Your task to perform on an android device: uninstall "Cash App" Image 0: 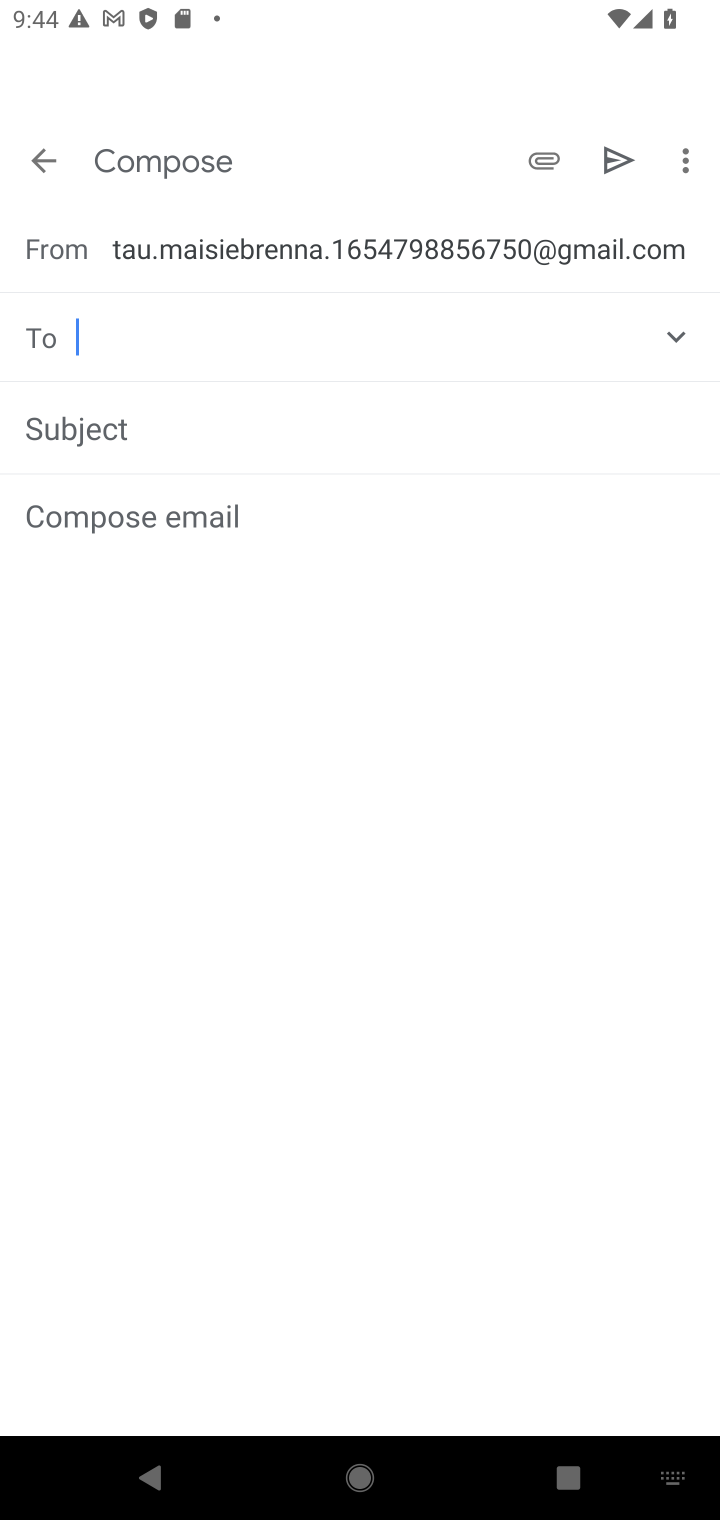
Step 0: press home button
Your task to perform on an android device: uninstall "Cash App" Image 1: 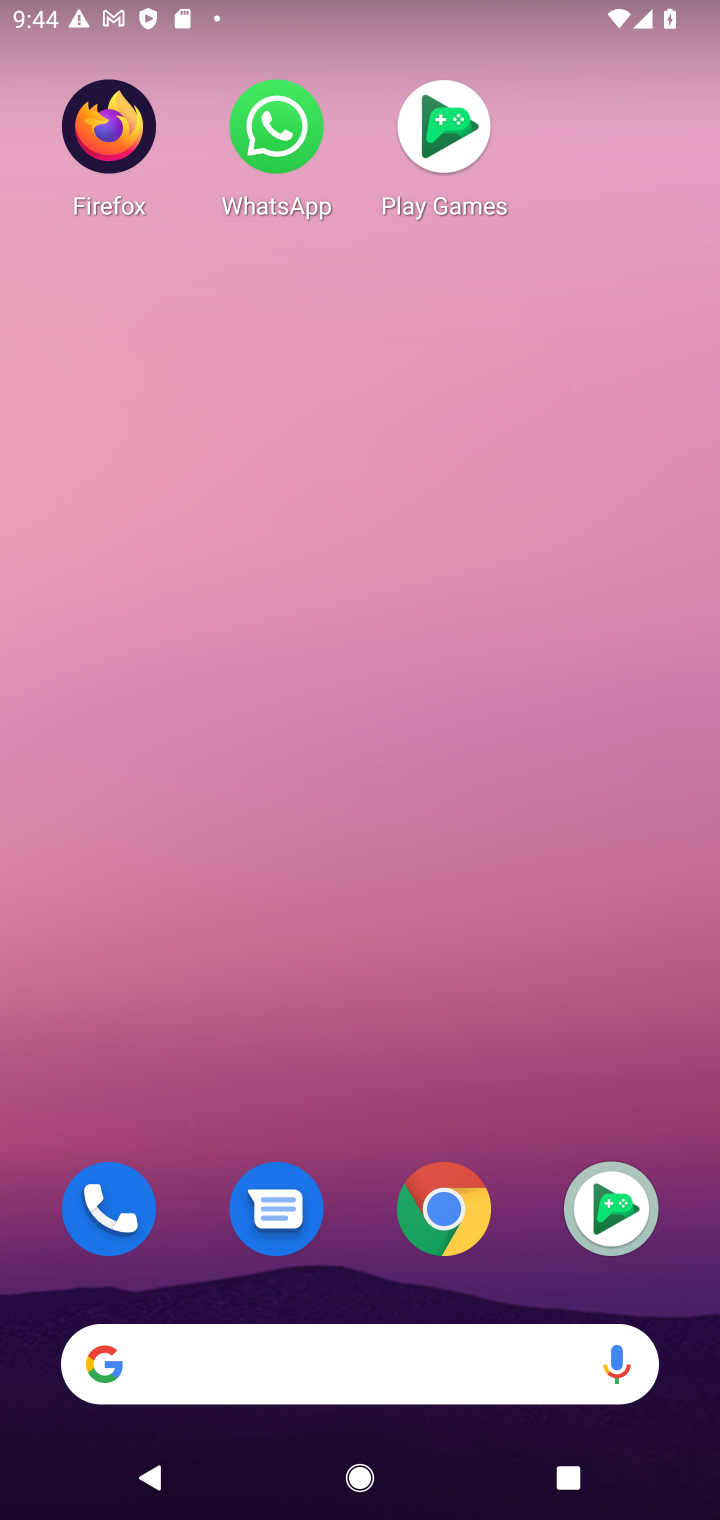
Step 1: drag from (332, 1200) to (363, 316)
Your task to perform on an android device: uninstall "Cash App" Image 2: 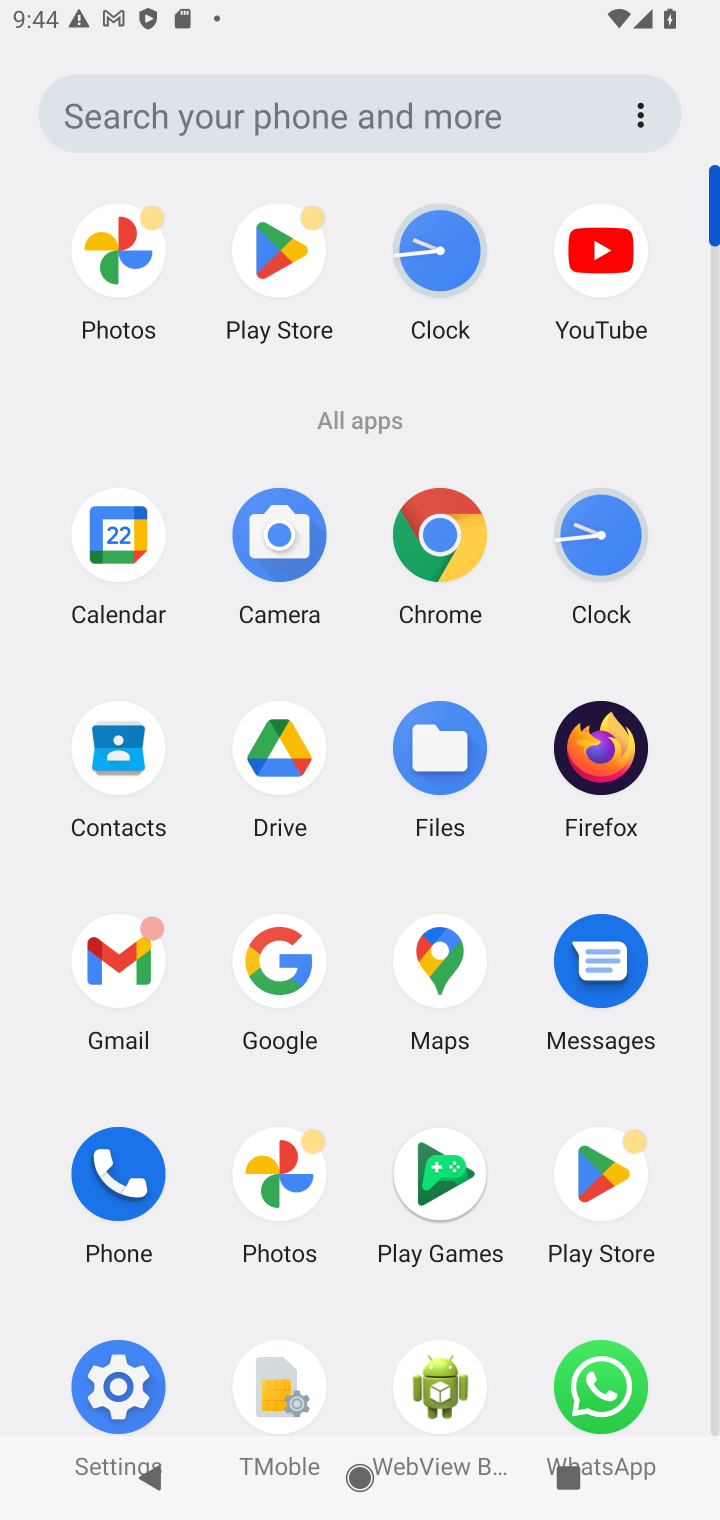
Step 2: click (281, 251)
Your task to perform on an android device: uninstall "Cash App" Image 3: 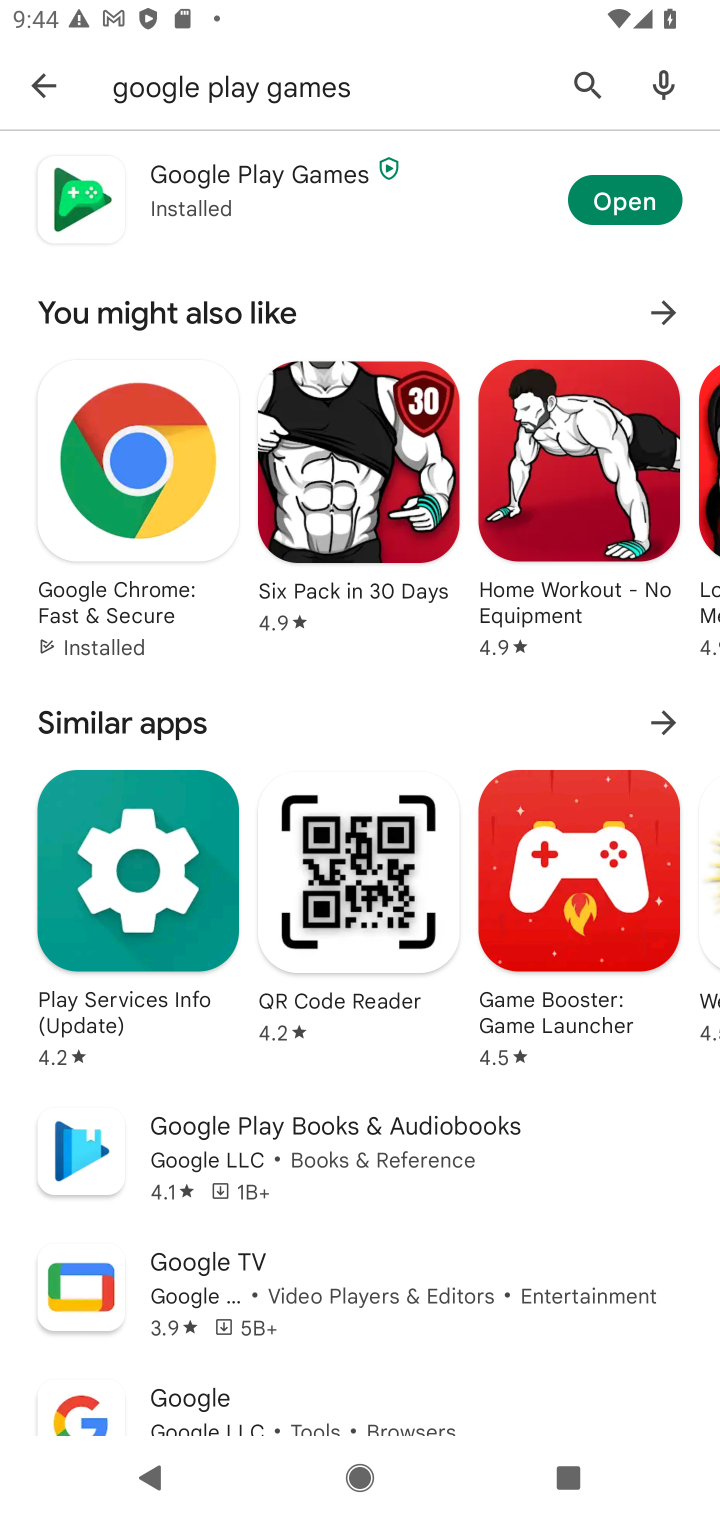
Step 3: click (577, 87)
Your task to perform on an android device: uninstall "Cash App" Image 4: 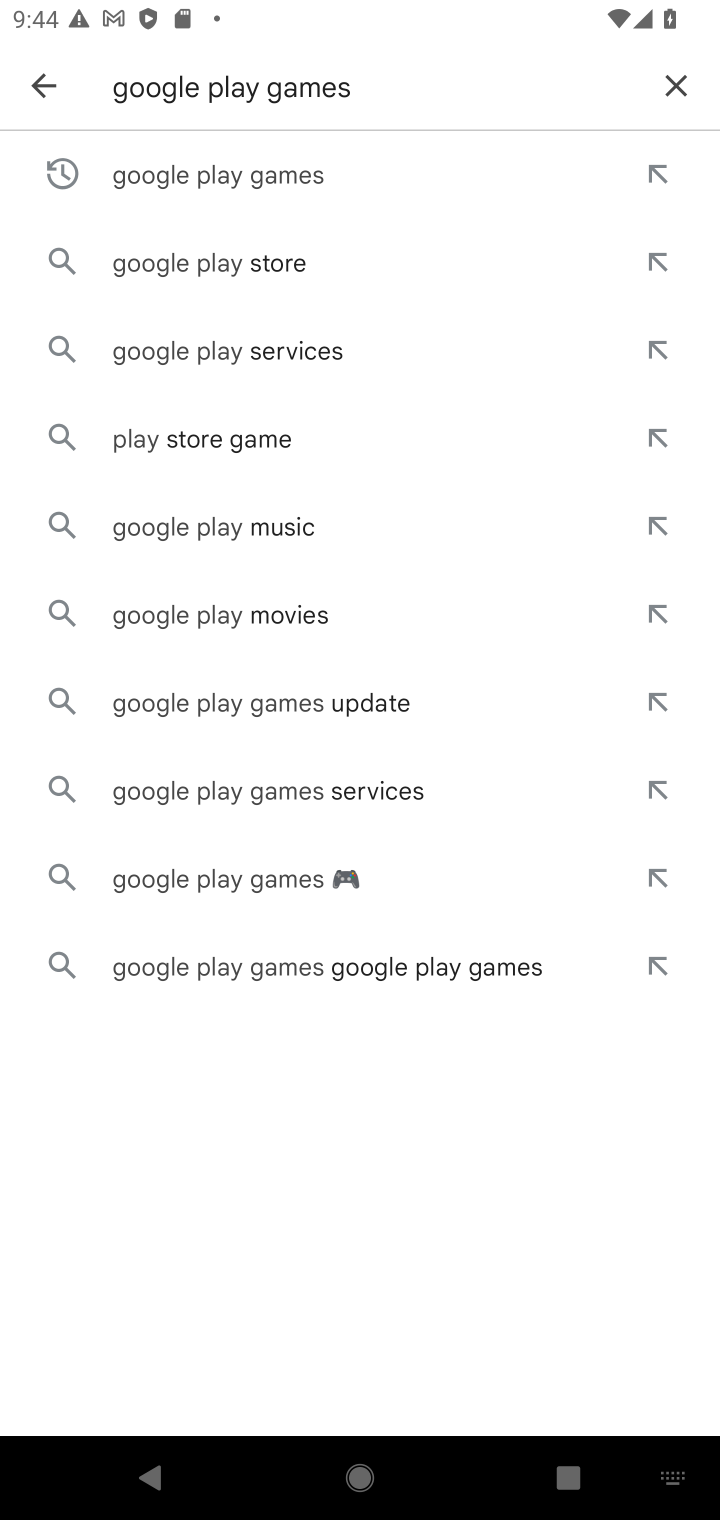
Step 4: click (669, 78)
Your task to perform on an android device: uninstall "Cash App" Image 5: 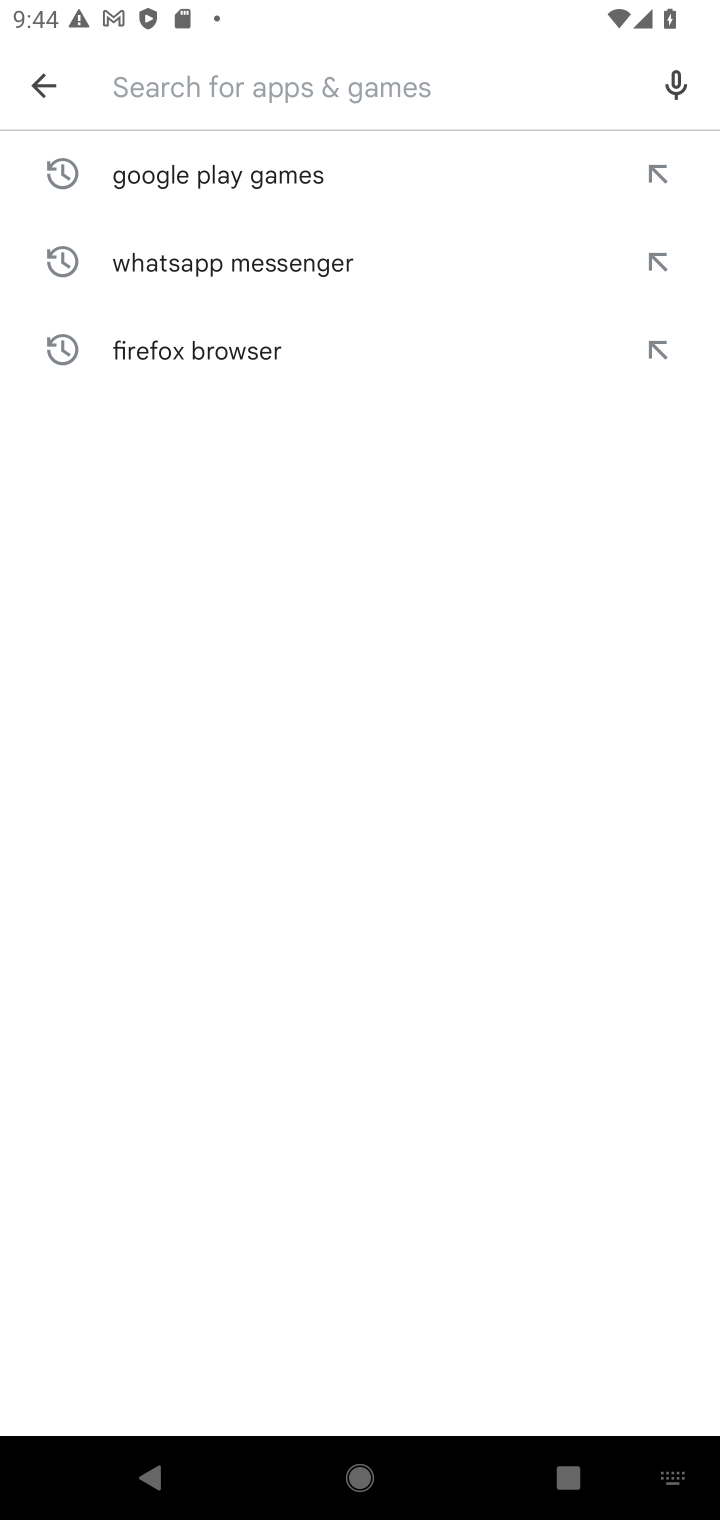
Step 5: type "Cash App"
Your task to perform on an android device: uninstall "Cash App" Image 6: 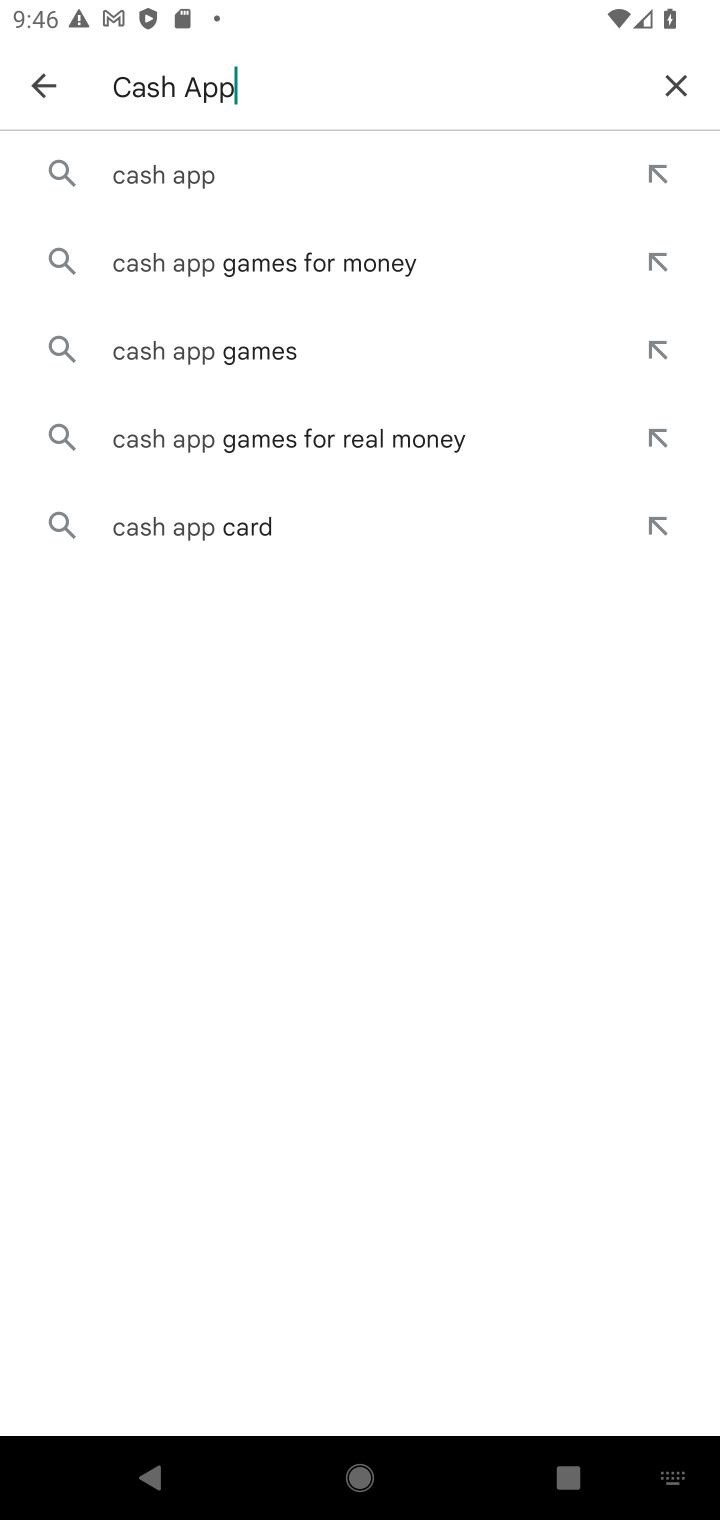
Step 6: click (134, 195)
Your task to perform on an android device: uninstall "Cash App" Image 7: 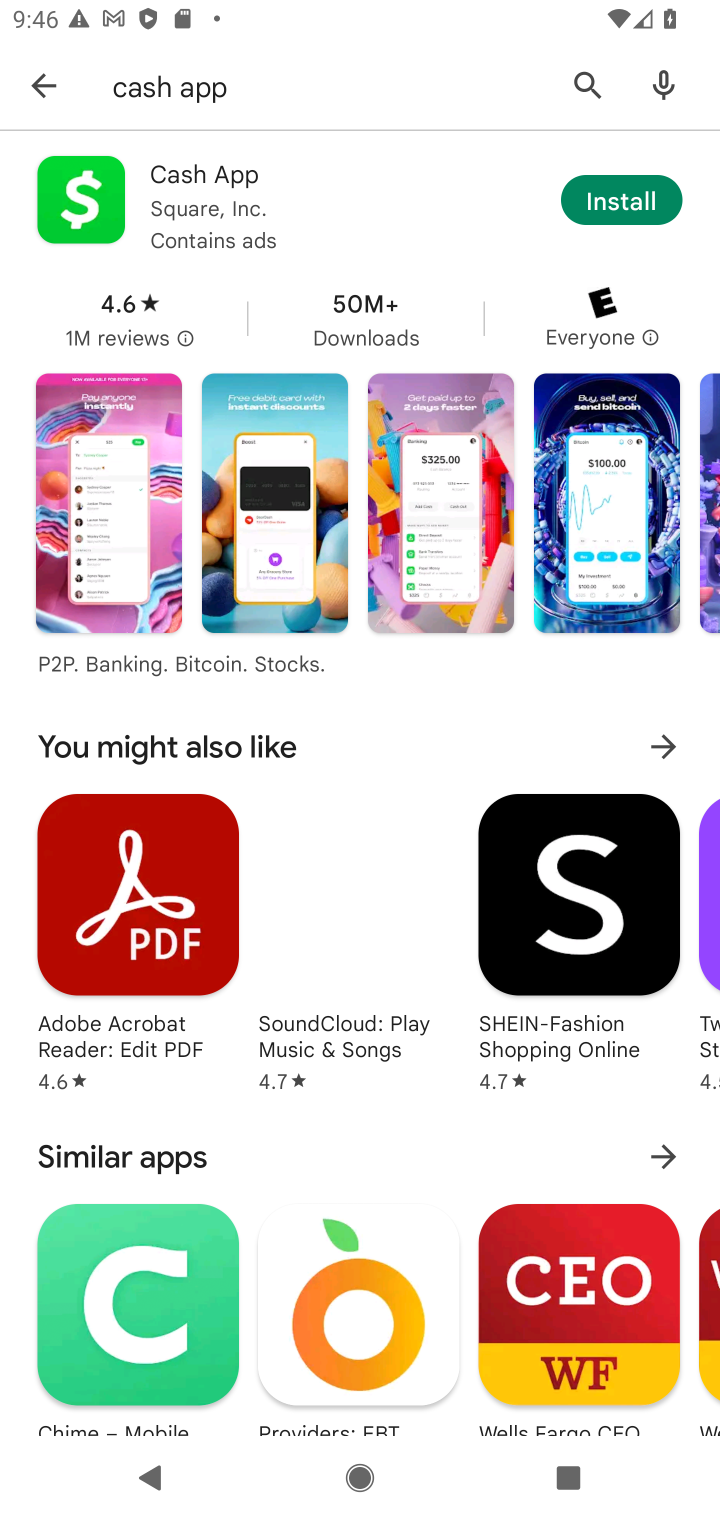
Step 7: task complete